Your task to perform on an android device: Go to Wikipedia Image 0: 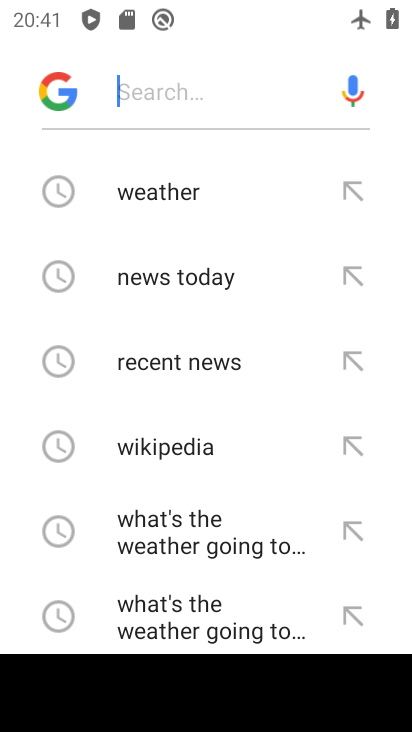
Step 0: press home button
Your task to perform on an android device: Go to Wikipedia Image 1: 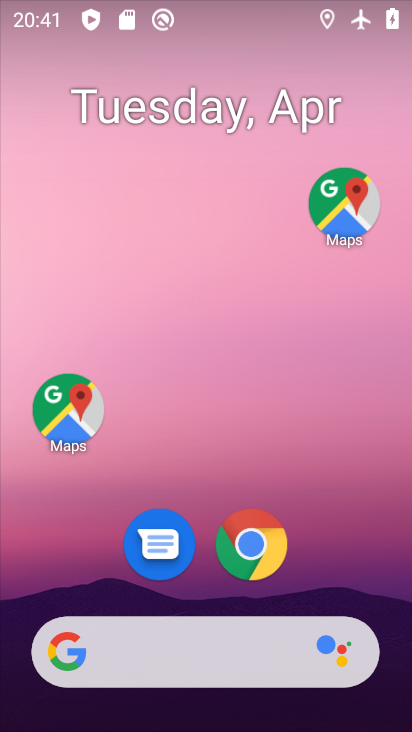
Step 1: drag from (188, 530) to (327, 30)
Your task to perform on an android device: Go to Wikipedia Image 2: 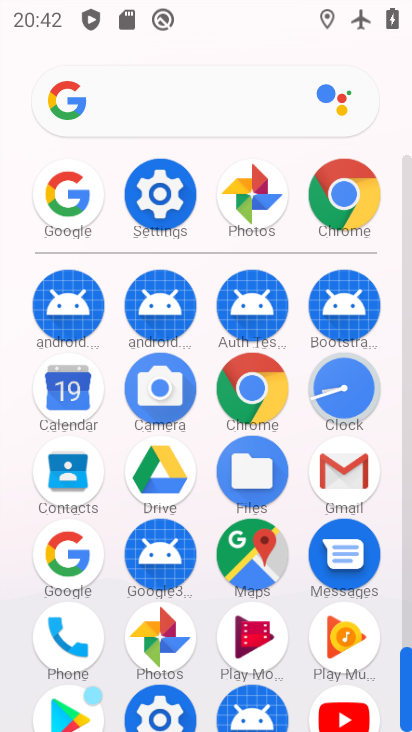
Step 2: click (340, 204)
Your task to perform on an android device: Go to Wikipedia Image 3: 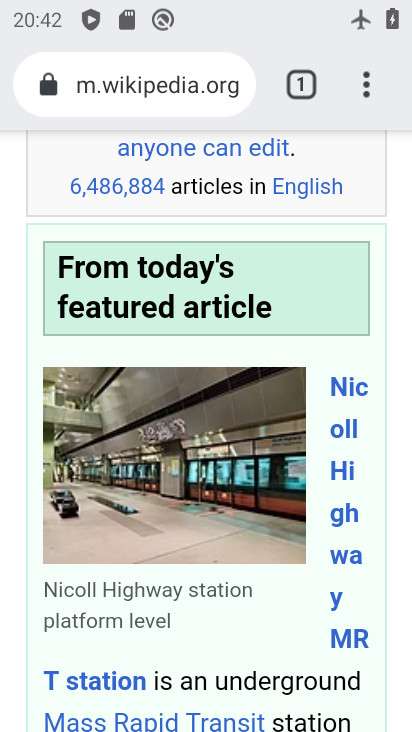
Step 3: task complete